Your task to perform on an android device: make emails show in primary in the gmail app Image 0: 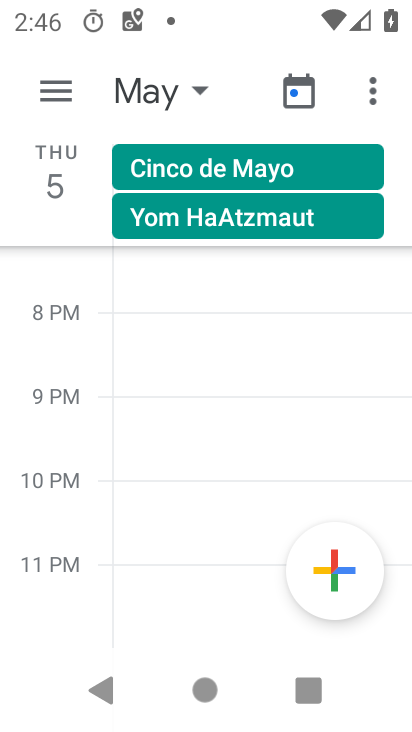
Step 0: press home button
Your task to perform on an android device: make emails show in primary in the gmail app Image 1: 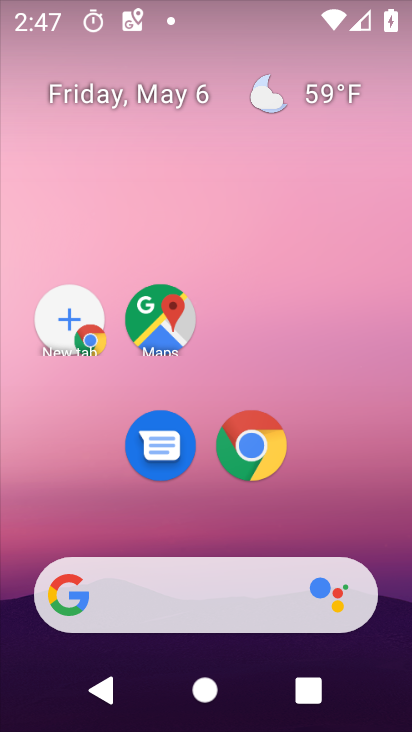
Step 1: drag from (384, 608) to (402, 79)
Your task to perform on an android device: make emails show in primary in the gmail app Image 2: 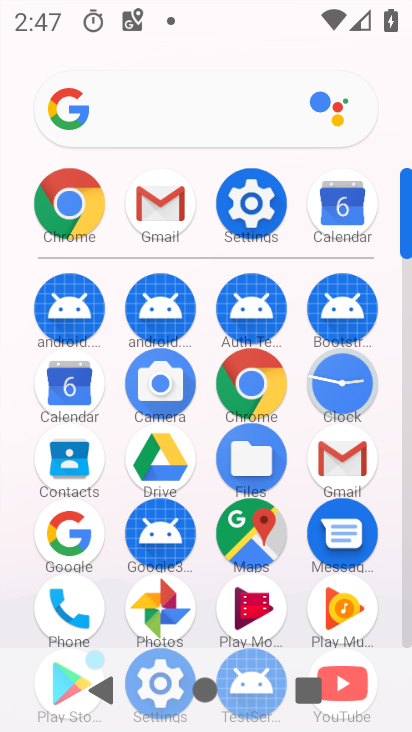
Step 2: click (345, 466)
Your task to perform on an android device: make emails show in primary in the gmail app Image 3: 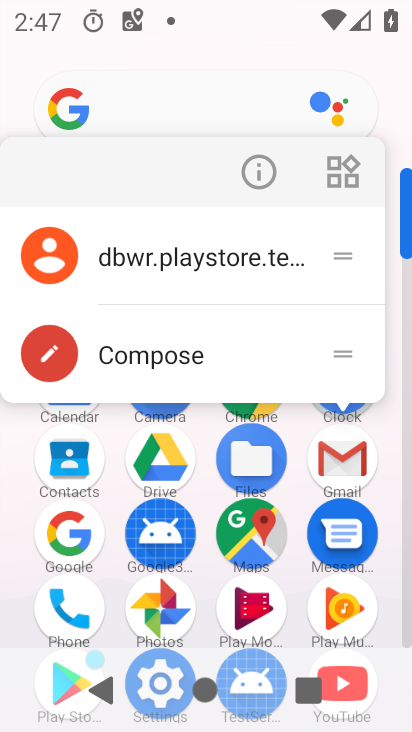
Step 3: click (340, 454)
Your task to perform on an android device: make emails show in primary in the gmail app Image 4: 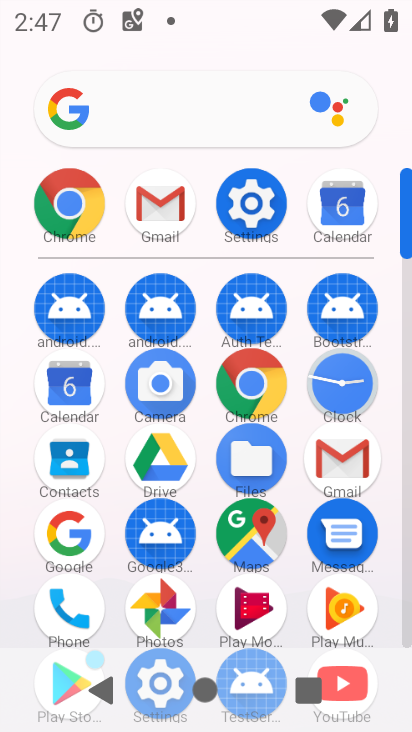
Step 4: click (345, 450)
Your task to perform on an android device: make emails show in primary in the gmail app Image 5: 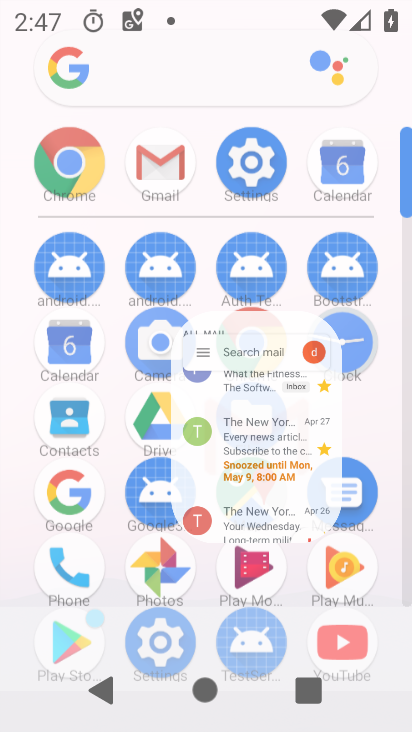
Step 5: click (345, 450)
Your task to perform on an android device: make emails show in primary in the gmail app Image 6: 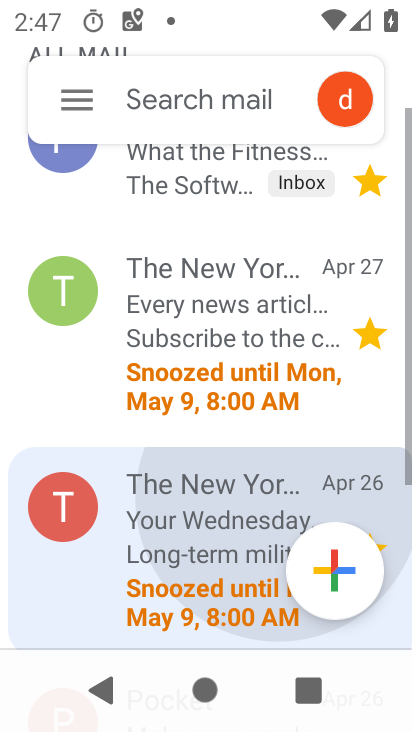
Step 6: click (346, 451)
Your task to perform on an android device: make emails show in primary in the gmail app Image 7: 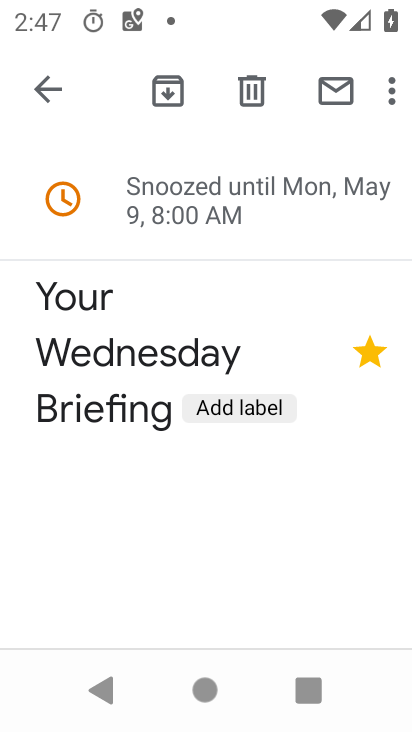
Step 7: click (40, 87)
Your task to perform on an android device: make emails show in primary in the gmail app Image 8: 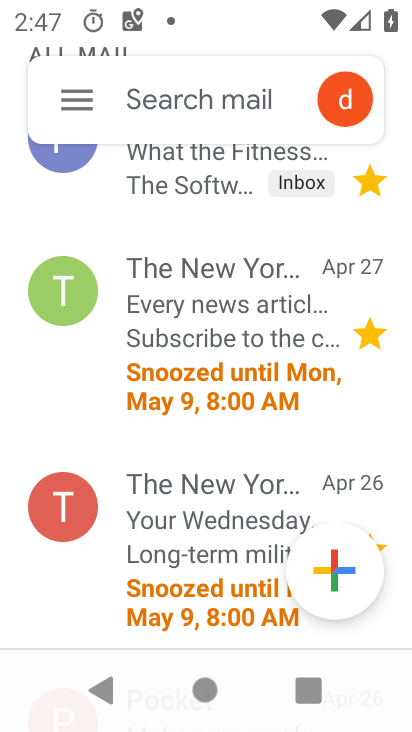
Step 8: drag from (214, 377) to (217, 490)
Your task to perform on an android device: make emails show in primary in the gmail app Image 9: 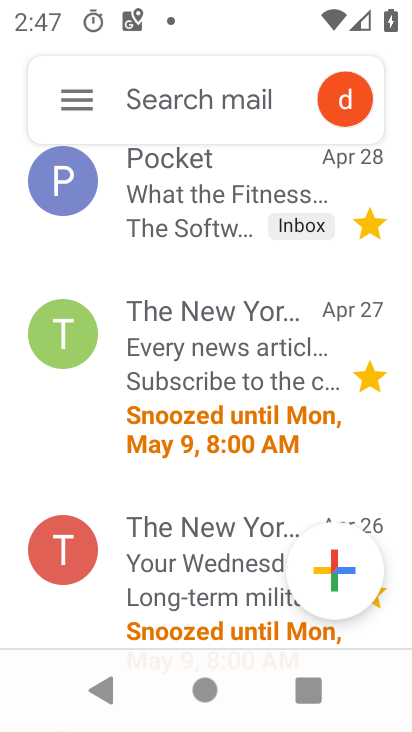
Step 9: click (73, 97)
Your task to perform on an android device: make emails show in primary in the gmail app Image 10: 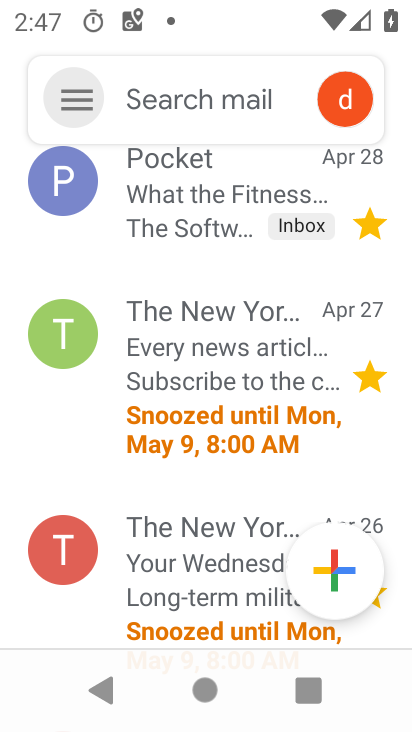
Step 10: click (74, 96)
Your task to perform on an android device: make emails show in primary in the gmail app Image 11: 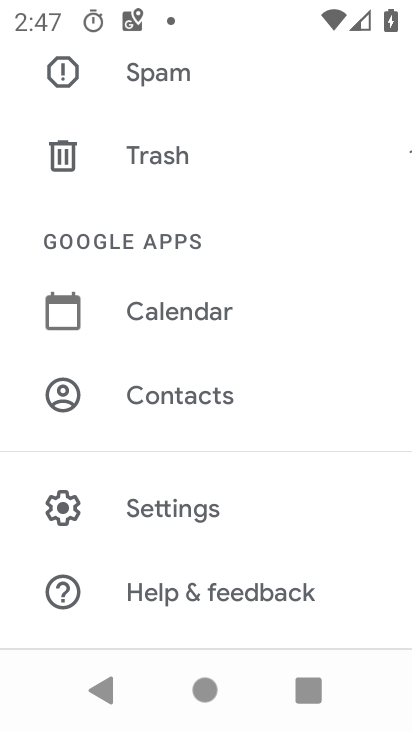
Step 11: click (74, 96)
Your task to perform on an android device: make emails show in primary in the gmail app Image 12: 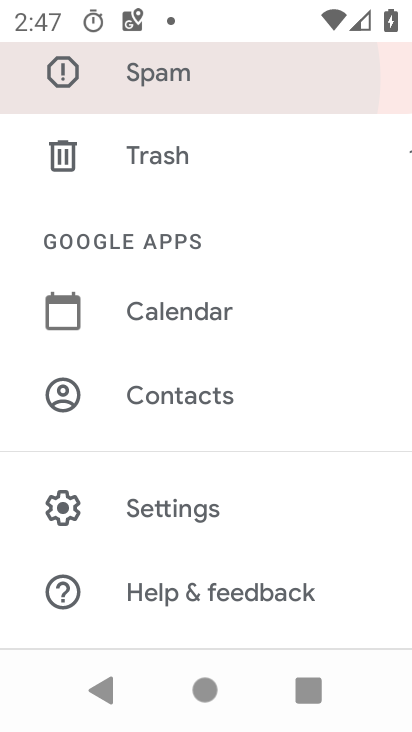
Step 12: click (75, 98)
Your task to perform on an android device: make emails show in primary in the gmail app Image 13: 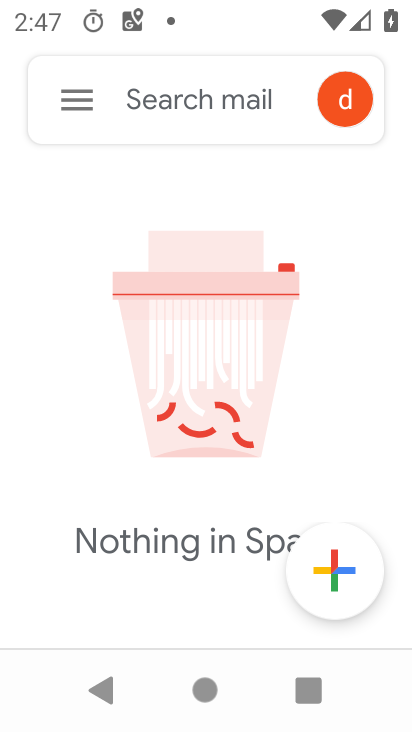
Step 13: click (76, 104)
Your task to perform on an android device: make emails show in primary in the gmail app Image 14: 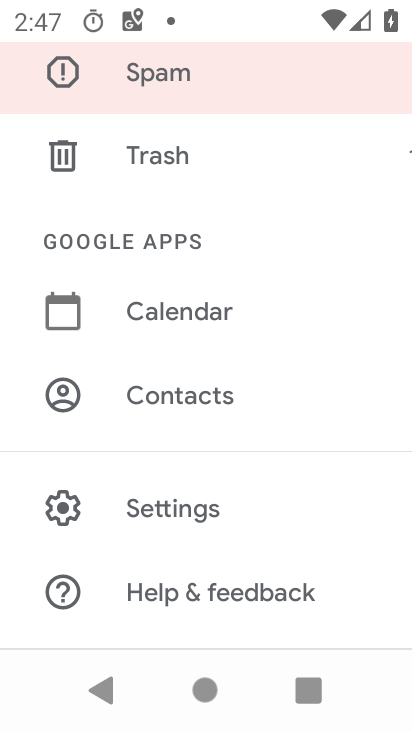
Step 14: click (162, 505)
Your task to perform on an android device: make emails show in primary in the gmail app Image 15: 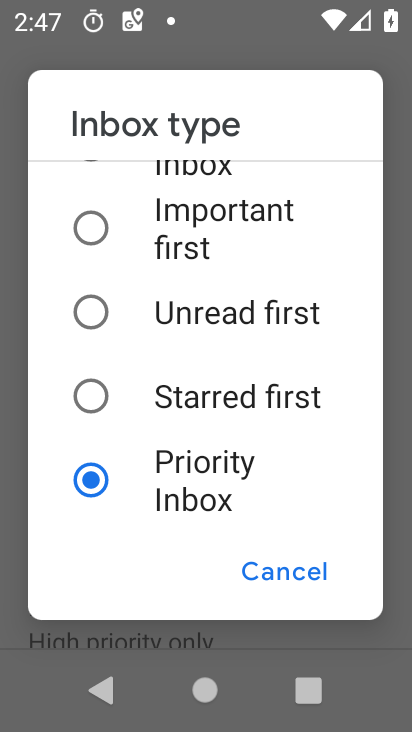
Step 15: click (294, 568)
Your task to perform on an android device: make emails show in primary in the gmail app Image 16: 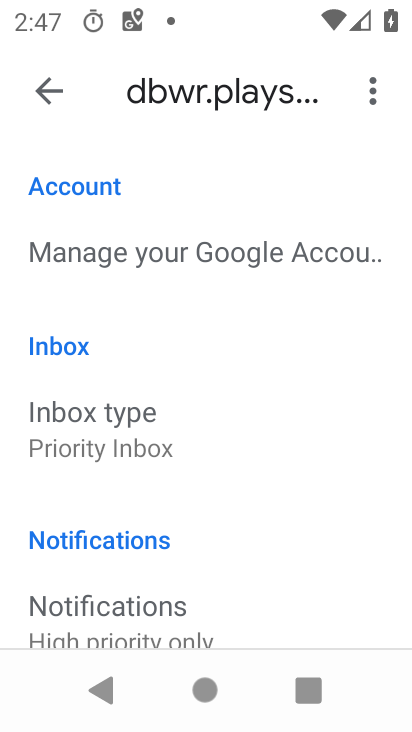
Step 16: task complete